Your task to perform on an android device: Show me popular games on the Play Store Image 0: 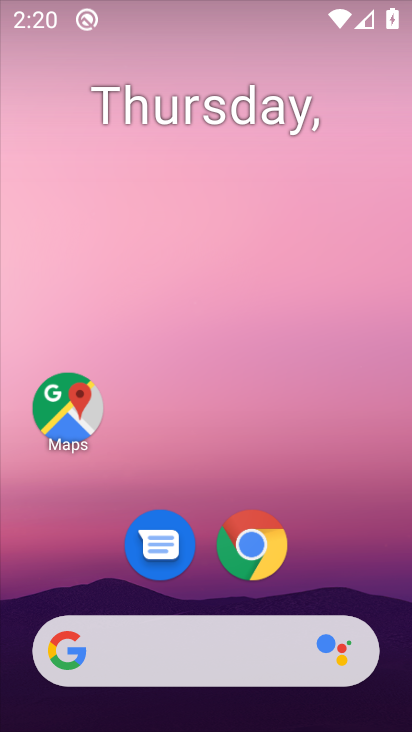
Step 0: drag from (206, 623) to (248, 137)
Your task to perform on an android device: Show me popular games on the Play Store Image 1: 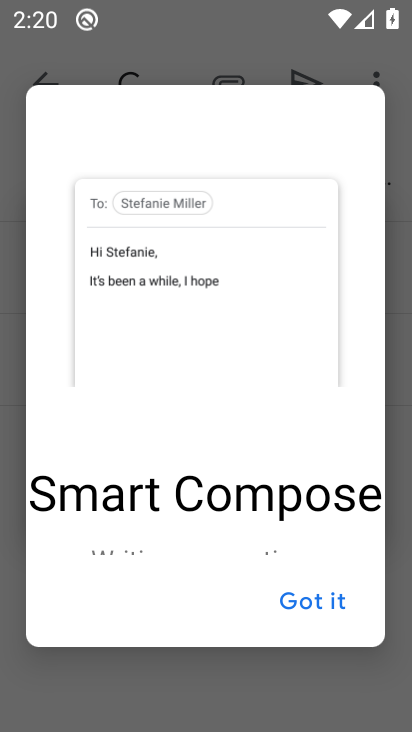
Step 1: click (304, 598)
Your task to perform on an android device: Show me popular games on the Play Store Image 2: 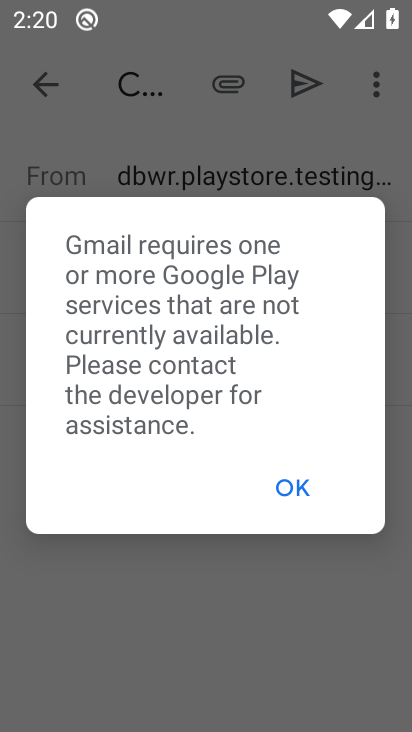
Step 2: press home button
Your task to perform on an android device: Show me popular games on the Play Store Image 3: 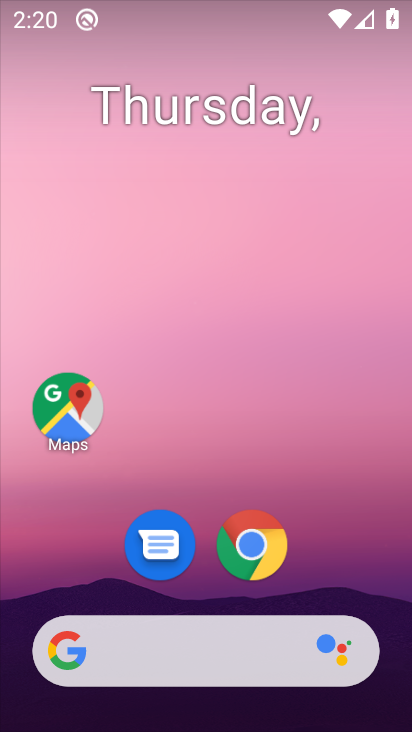
Step 3: drag from (200, 626) to (308, 83)
Your task to perform on an android device: Show me popular games on the Play Store Image 4: 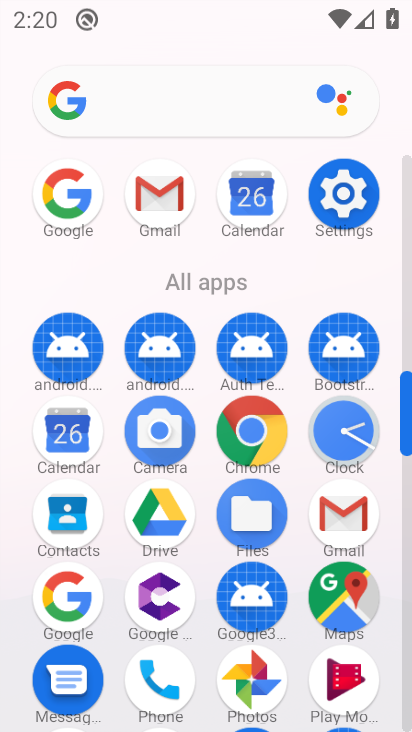
Step 4: drag from (117, 706) to (126, 404)
Your task to perform on an android device: Show me popular games on the Play Store Image 5: 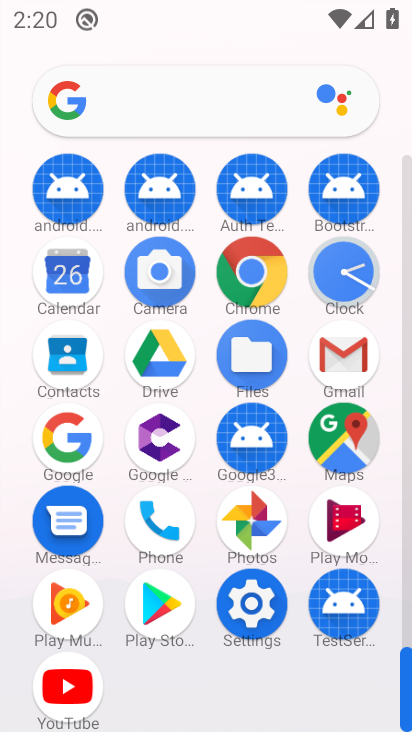
Step 5: click (167, 605)
Your task to perform on an android device: Show me popular games on the Play Store Image 6: 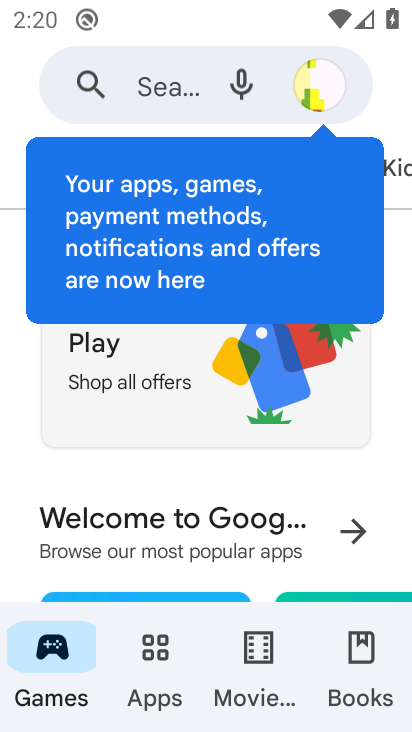
Step 6: click (151, 664)
Your task to perform on an android device: Show me popular games on the Play Store Image 7: 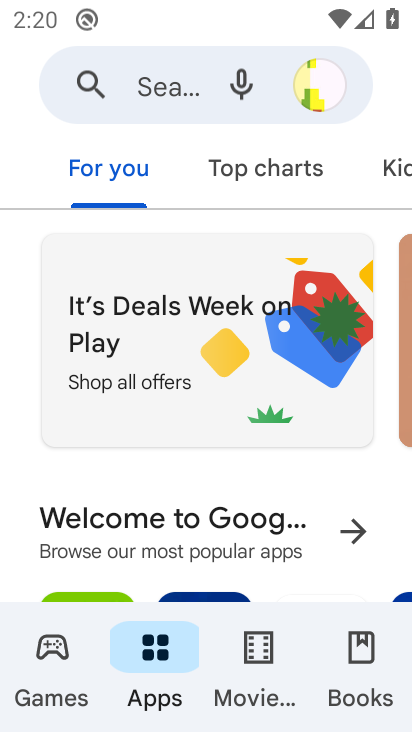
Step 7: task complete